Your task to perform on an android device: When is my next appointment? Image 0: 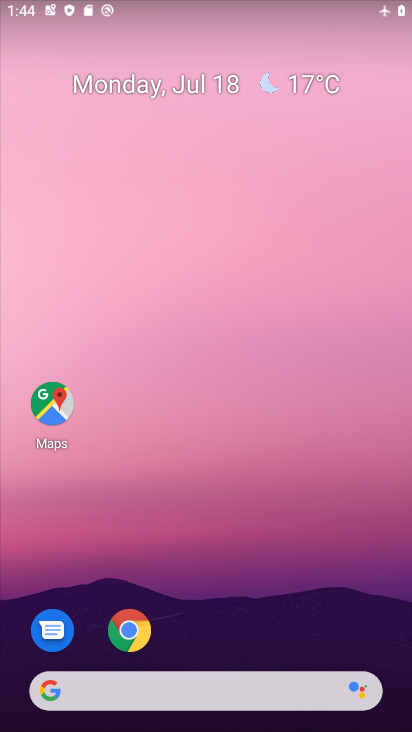
Step 0: drag from (272, 606) to (253, 0)
Your task to perform on an android device: When is my next appointment? Image 1: 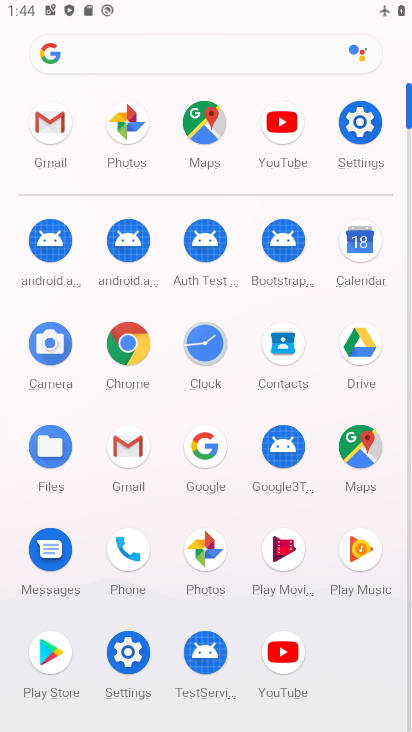
Step 1: click (353, 246)
Your task to perform on an android device: When is my next appointment? Image 2: 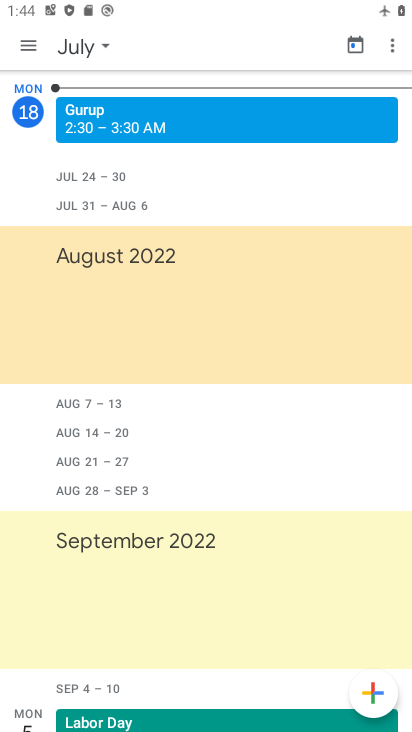
Step 2: task complete